Your task to perform on an android device: all mails in gmail Image 0: 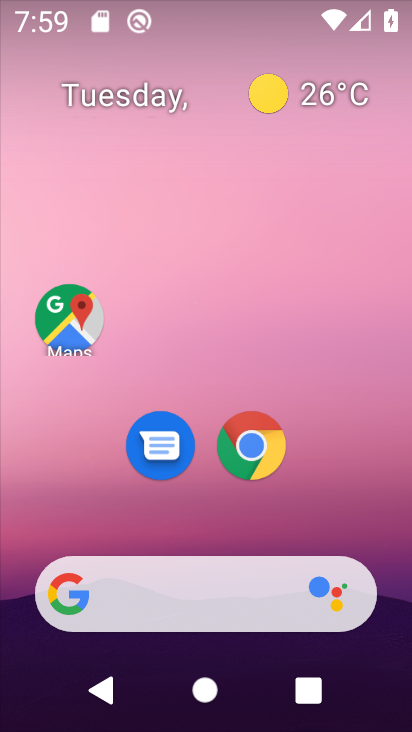
Step 0: drag from (345, 444) to (282, 60)
Your task to perform on an android device: all mails in gmail Image 1: 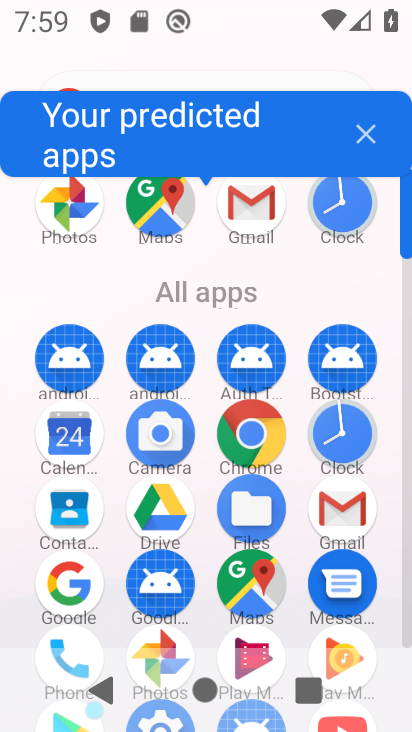
Step 1: click (251, 201)
Your task to perform on an android device: all mails in gmail Image 2: 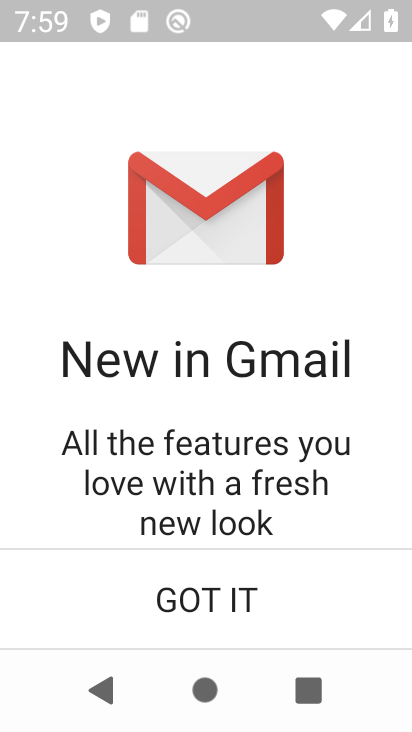
Step 2: click (202, 612)
Your task to perform on an android device: all mails in gmail Image 3: 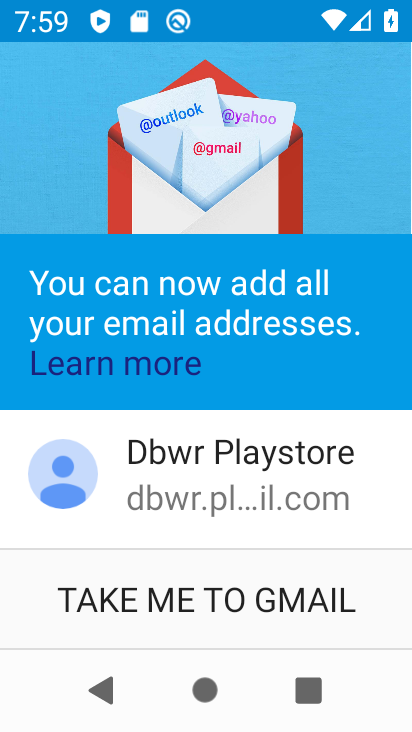
Step 3: click (204, 592)
Your task to perform on an android device: all mails in gmail Image 4: 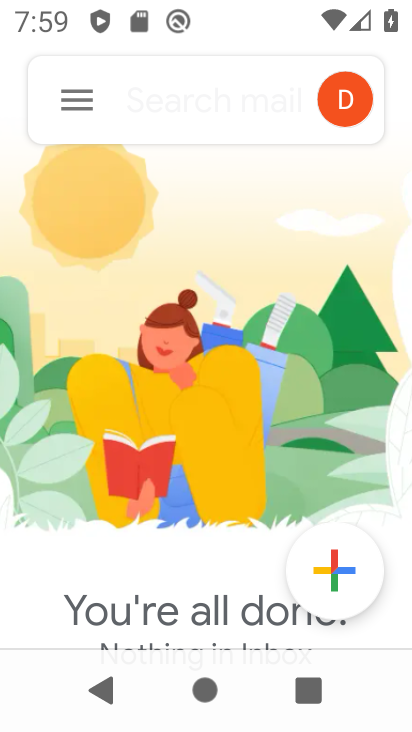
Step 4: click (70, 101)
Your task to perform on an android device: all mails in gmail Image 5: 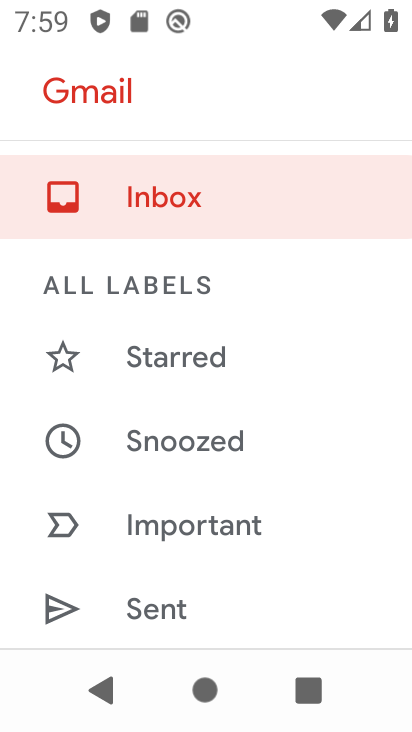
Step 5: drag from (174, 477) to (231, 373)
Your task to perform on an android device: all mails in gmail Image 6: 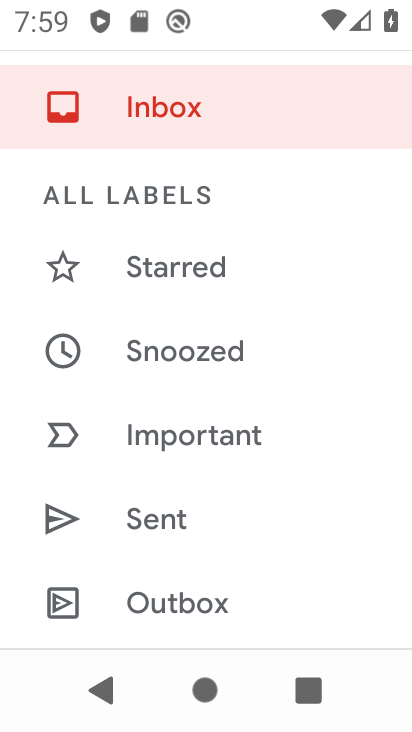
Step 6: drag from (178, 474) to (248, 375)
Your task to perform on an android device: all mails in gmail Image 7: 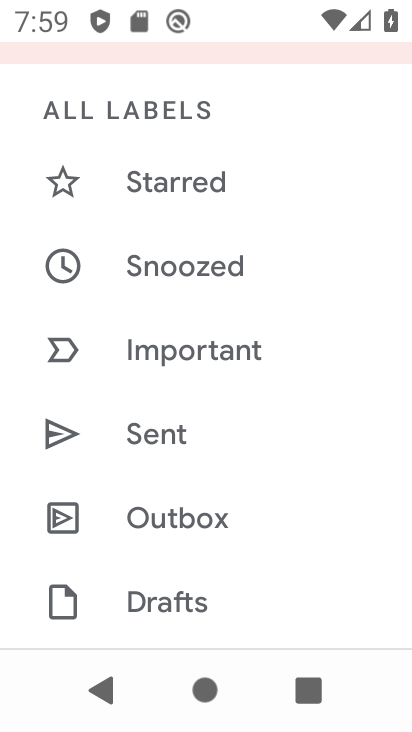
Step 7: drag from (180, 482) to (236, 388)
Your task to perform on an android device: all mails in gmail Image 8: 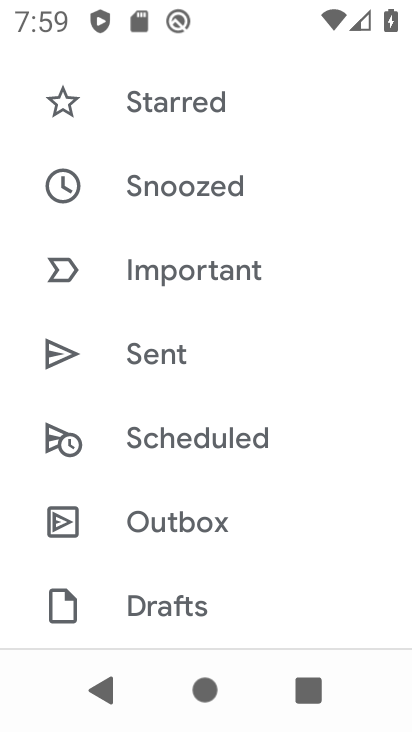
Step 8: drag from (163, 469) to (233, 371)
Your task to perform on an android device: all mails in gmail Image 9: 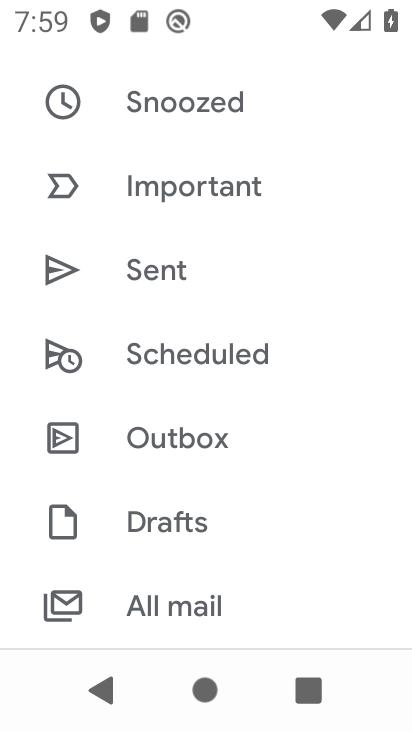
Step 9: drag from (191, 487) to (234, 406)
Your task to perform on an android device: all mails in gmail Image 10: 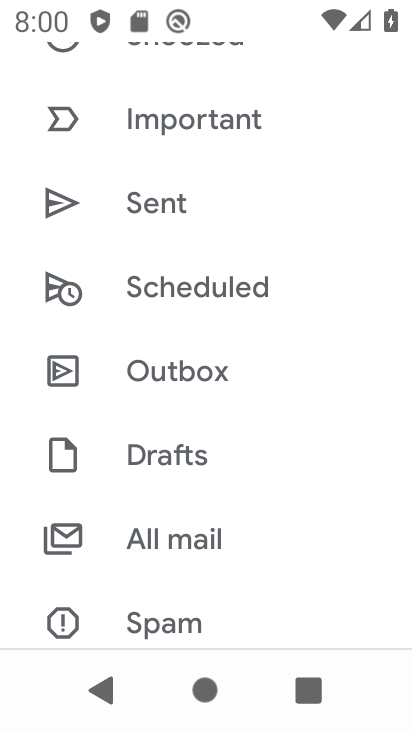
Step 10: click (197, 544)
Your task to perform on an android device: all mails in gmail Image 11: 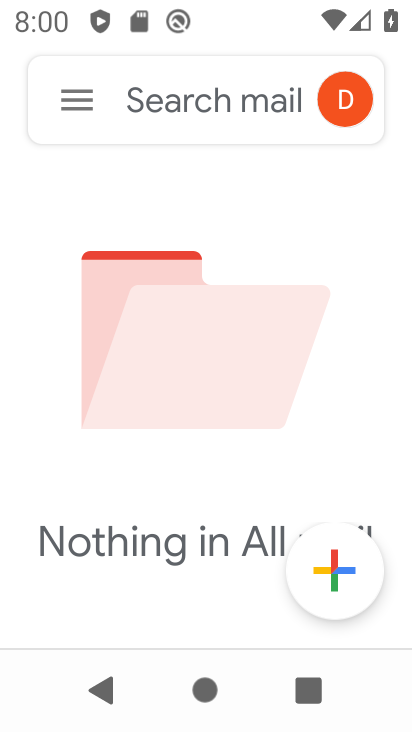
Step 11: task complete